Your task to perform on an android device: Search for "custom wallet" on Etsy. Image 0: 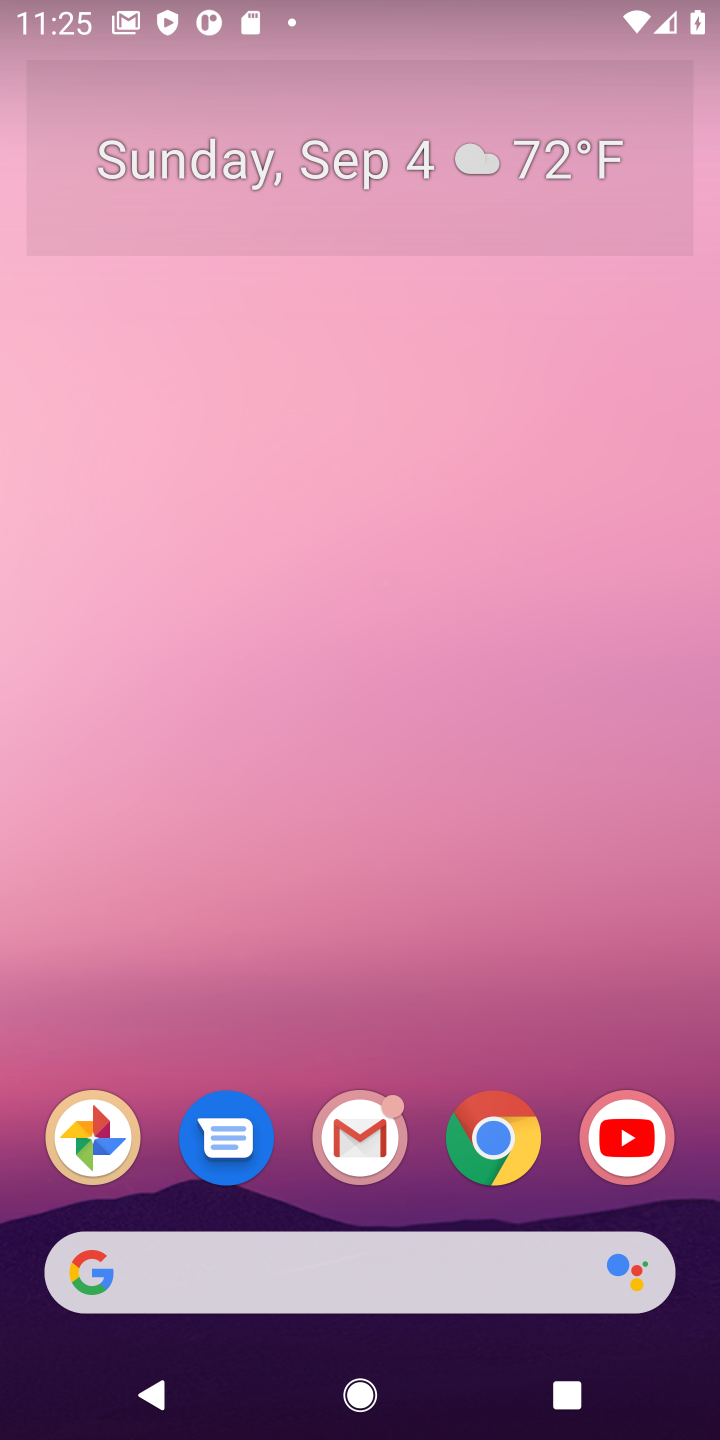
Step 0: click (485, 1175)
Your task to perform on an android device: Search for "custom wallet" on Etsy. Image 1: 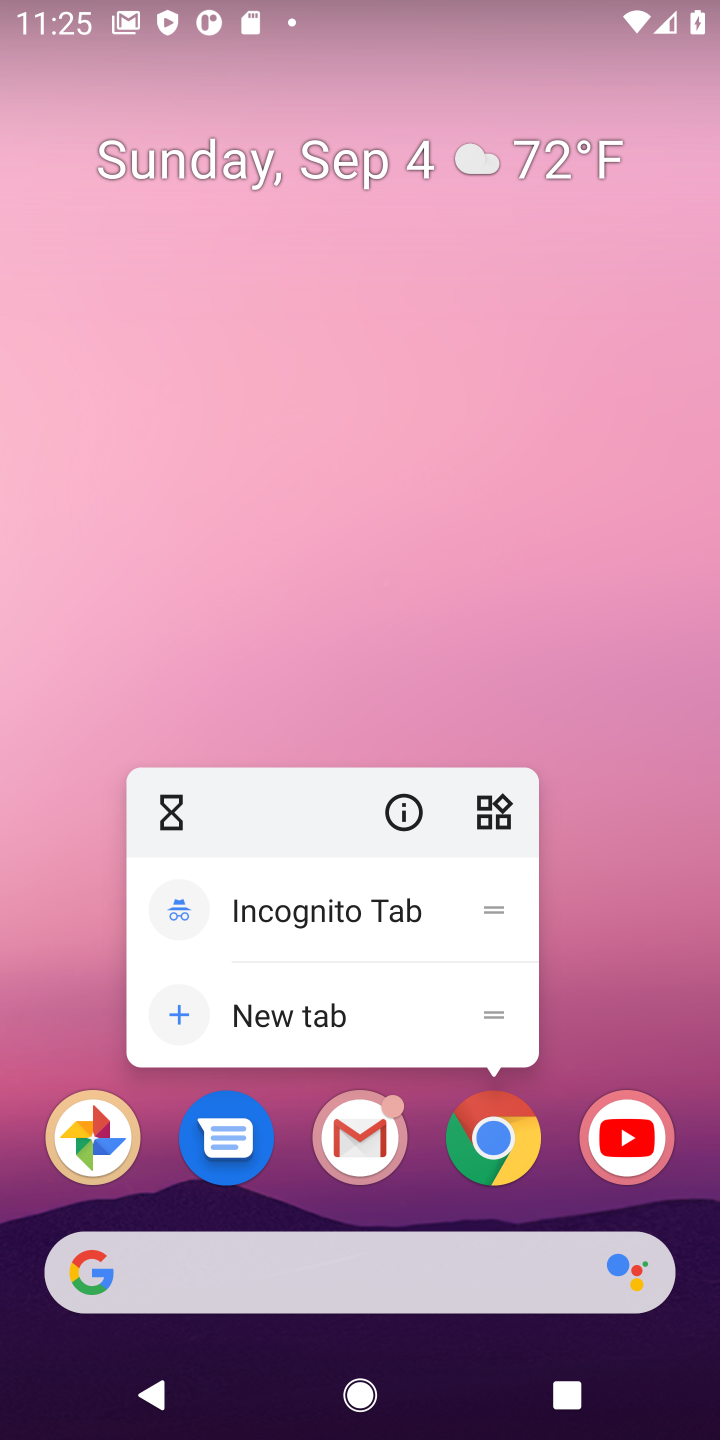
Step 1: click (507, 1137)
Your task to perform on an android device: Search for "custom wallet" on Etsy. Image 2: 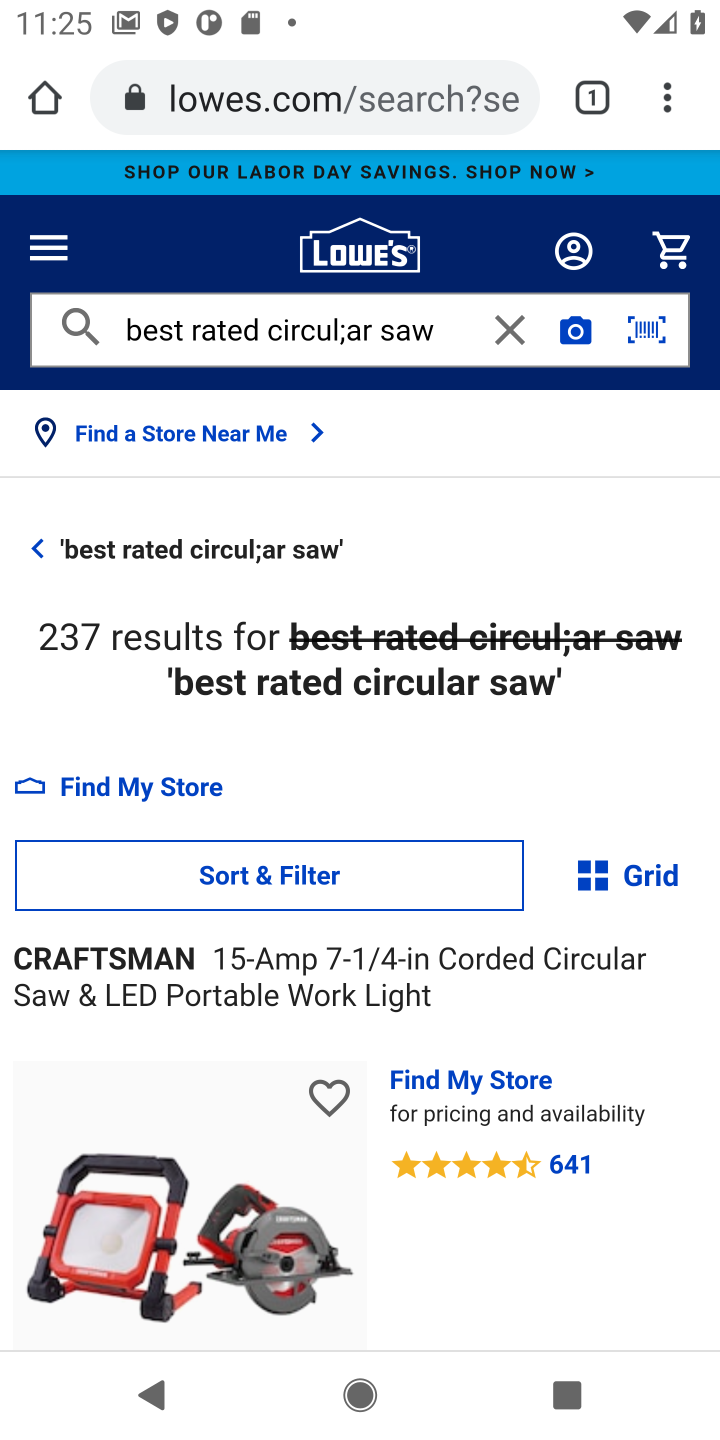
Step 2: click (380, 93)
Your task to perform on an android device: Search for "custom wallet" on Etsy. Image 3: 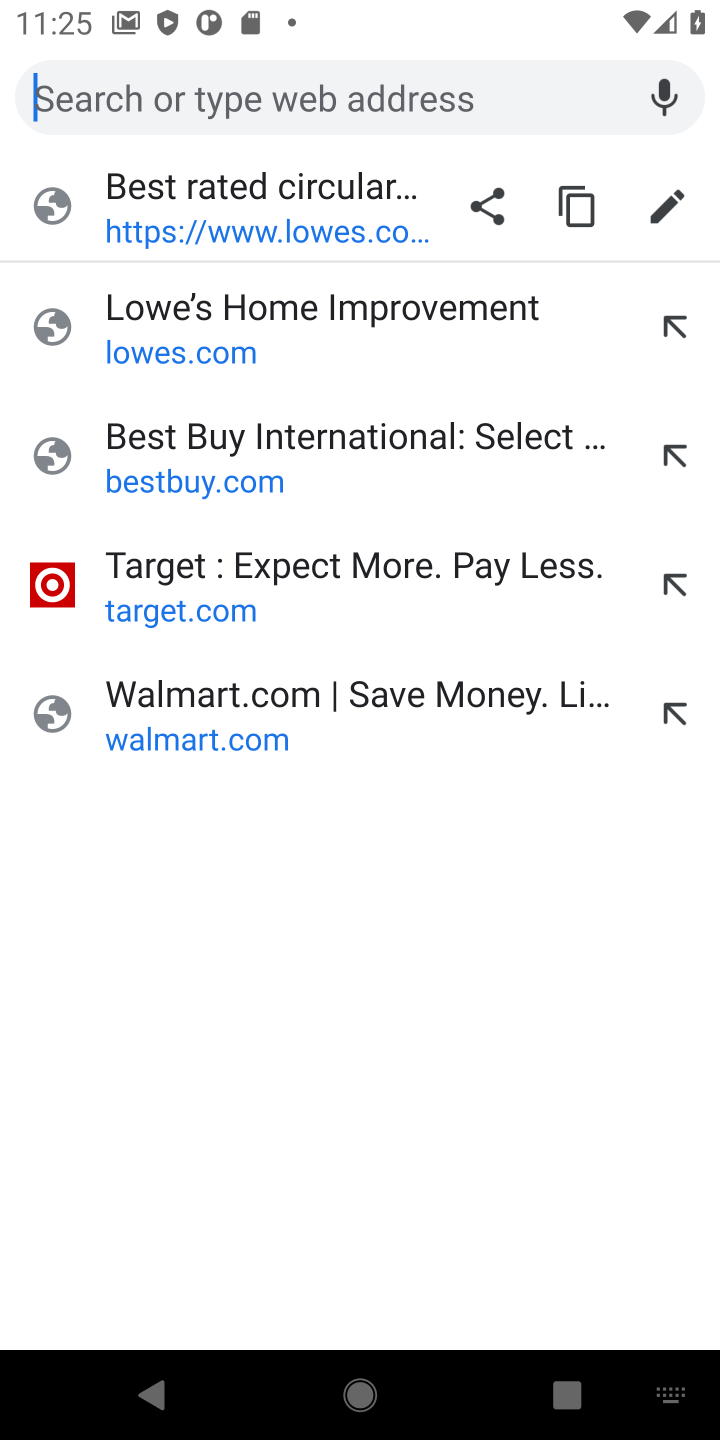
Step 3: type "etsy"
Your task to perform on an android device: Search for "custom wallet" on Etsy. Image 4: 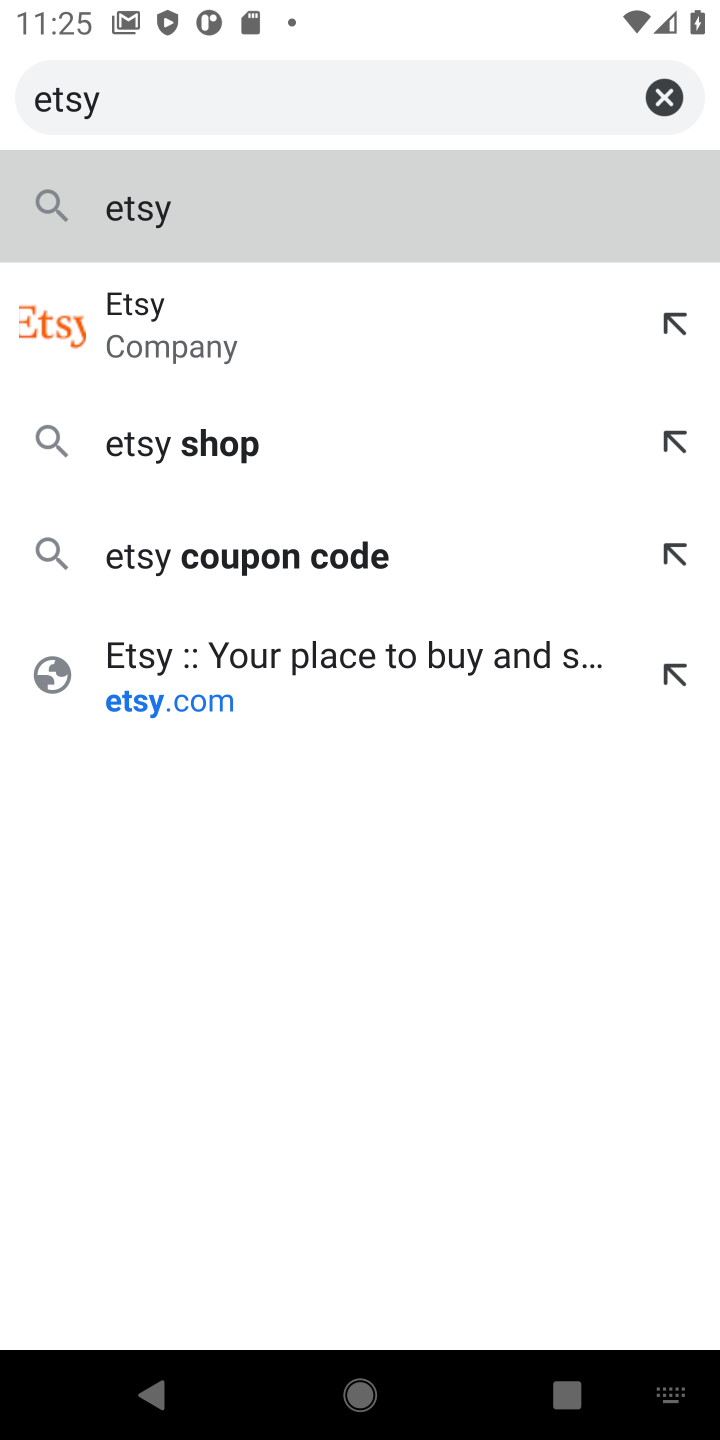
Step 4: click (335, 677)
Your task to perform on an android device: Search for "custom wallet" on Etsy. Image 5: 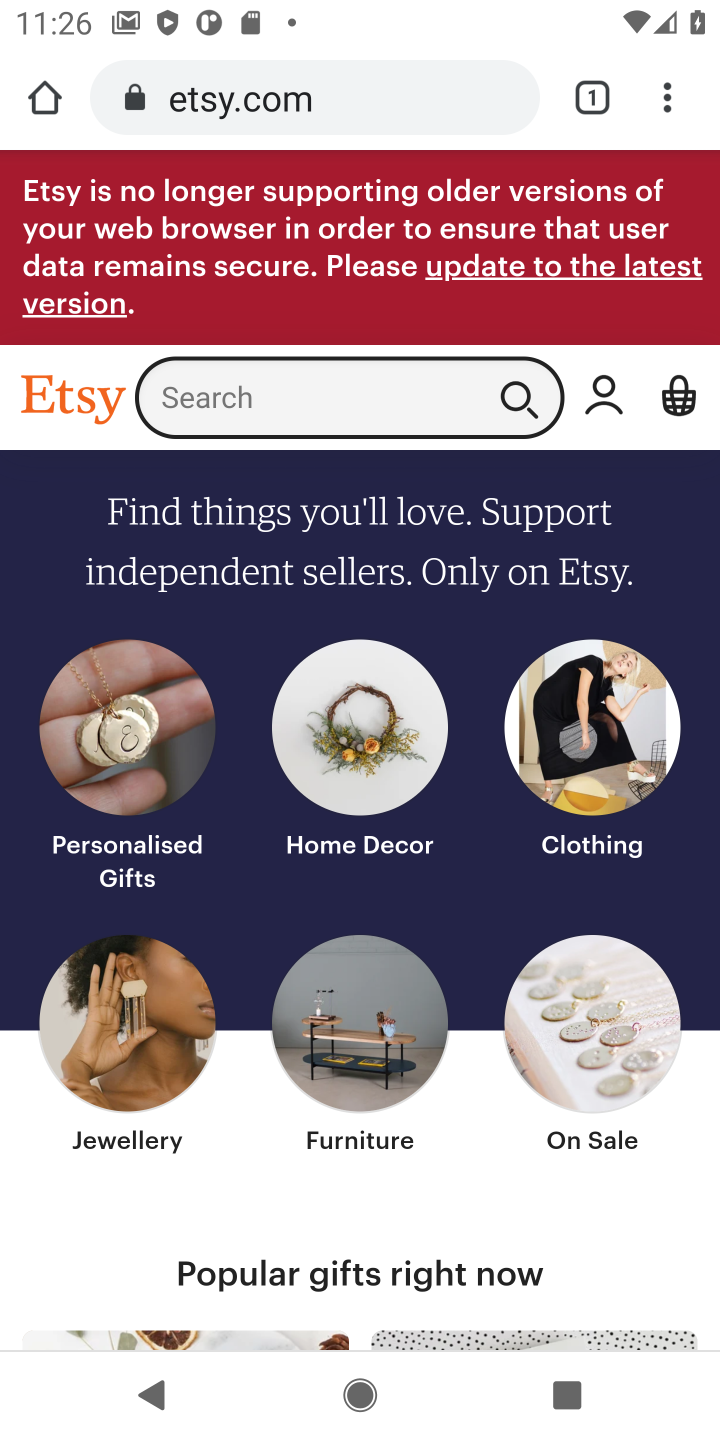
Step 5: click (346, 397)
Your task to perform on an android device: Search for "custom wallet" on Etsy. Image 6: 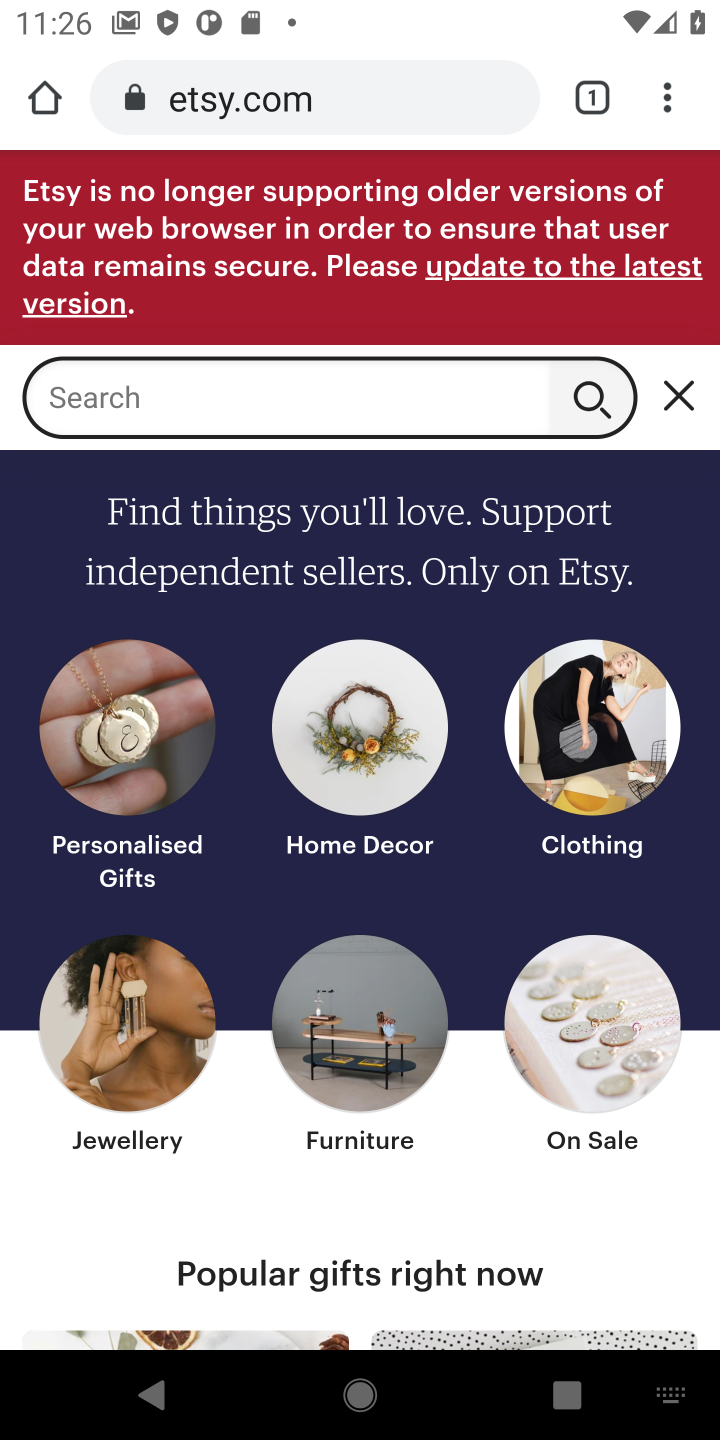
Step 6: type "custom wallet"
Your task to perform on an android device: Search for "custom wallet" on Etsy. Image 7: 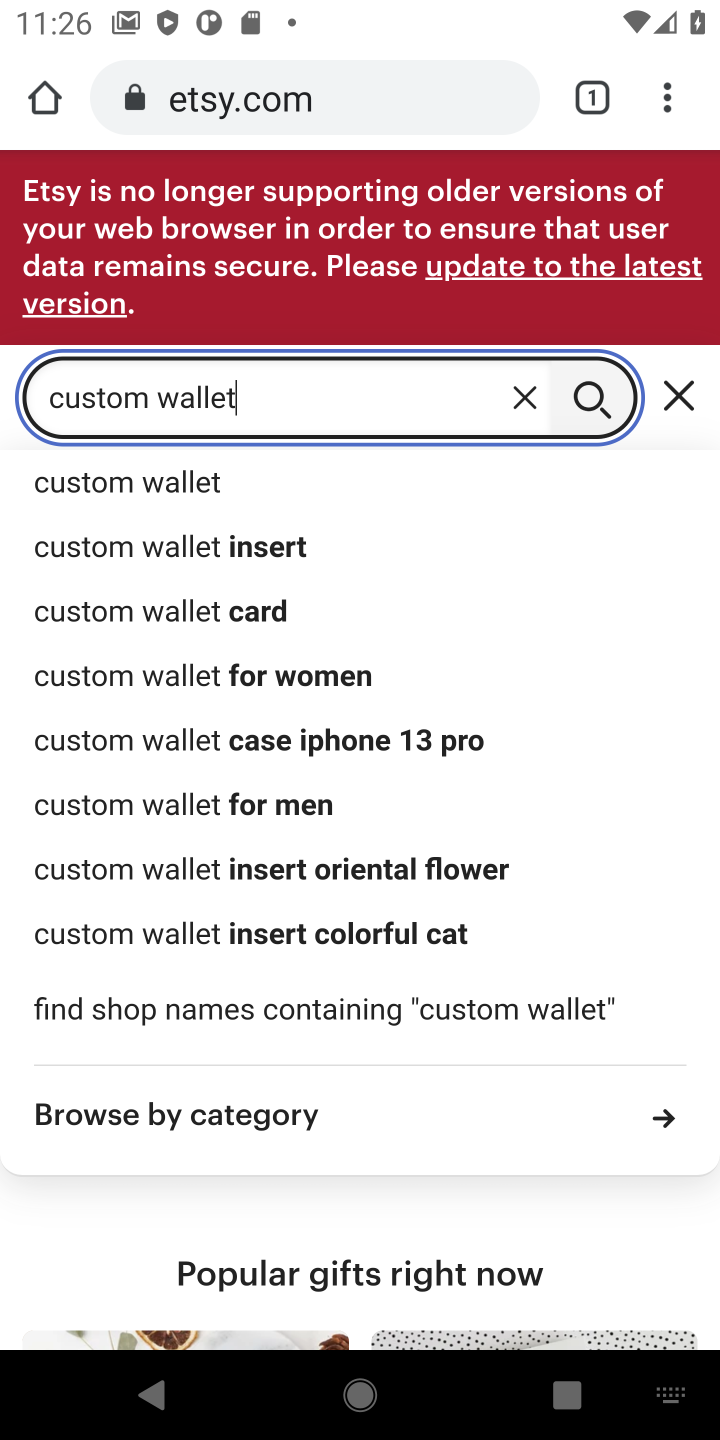
Step 7: click (239, 481)
Your task to perform on an android device: Search for "custom wallet" on Etsy. Image 8: 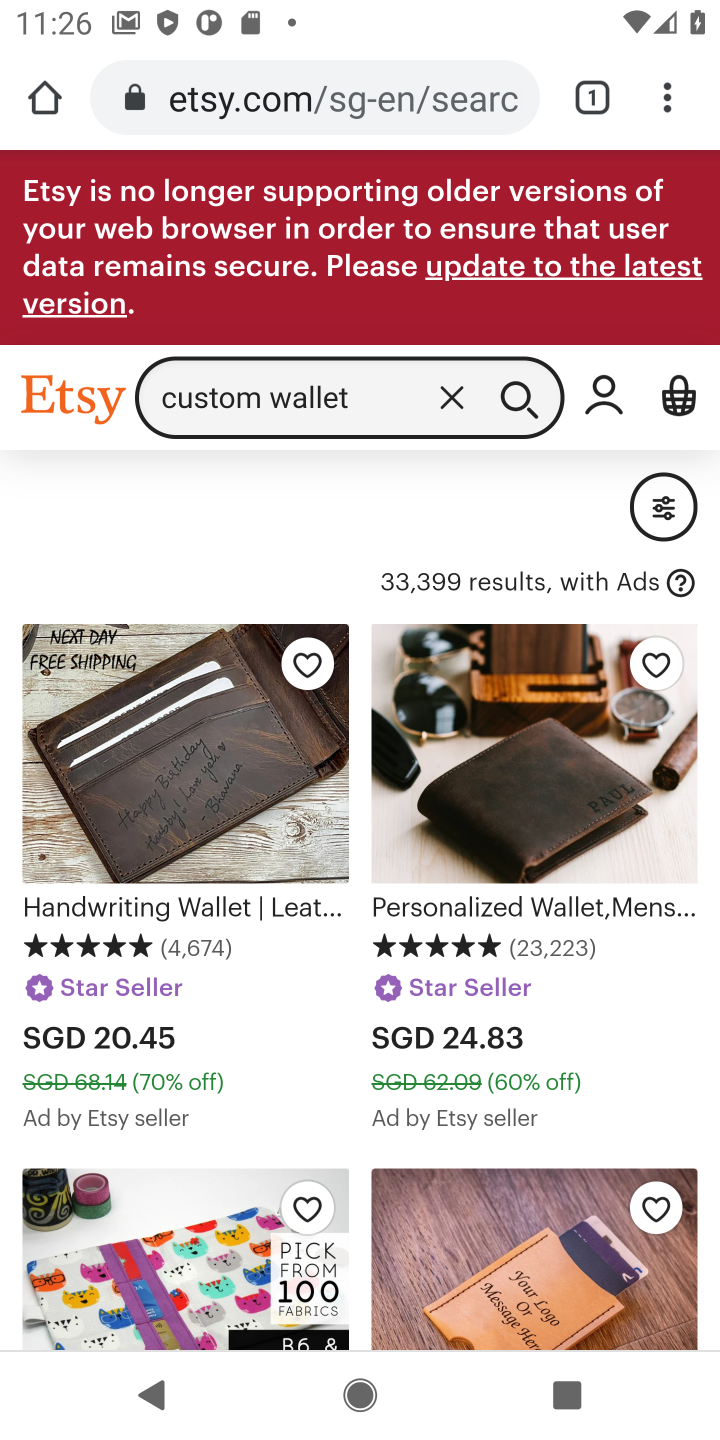
Step 8: task complete